Your task to perform on an android device: Open Maps and search for coffee Image 0: 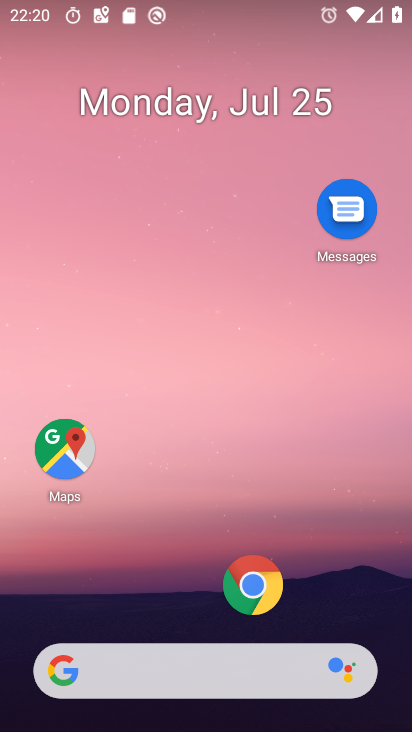
Step 0: click (75, 452)
Your task to perform on an android device: Open Maps and search for coffee Image 1: 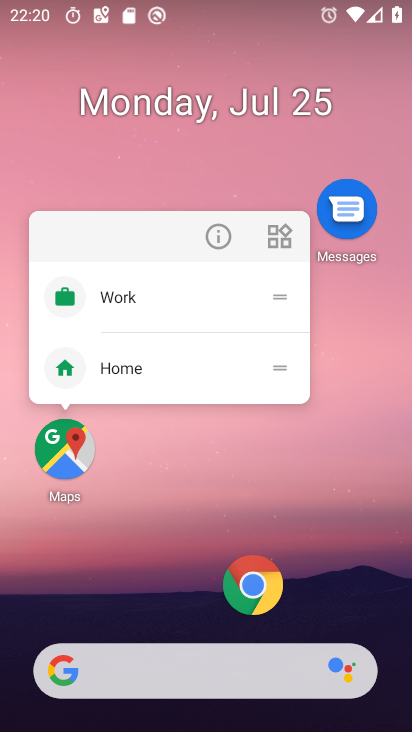
Step 1: click (60, 464)
Your task to perform on an android device: Open Maps and search for coffee Image 2: 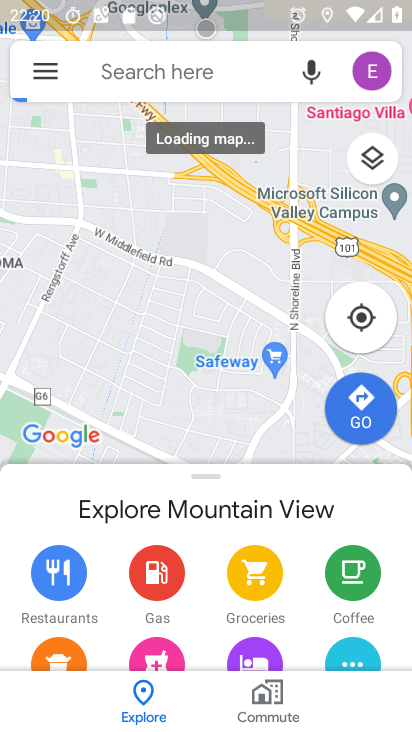
Step 2: click (190, 75)
Your task to perform on an android device: Open Maps and search for coffee Image 3: 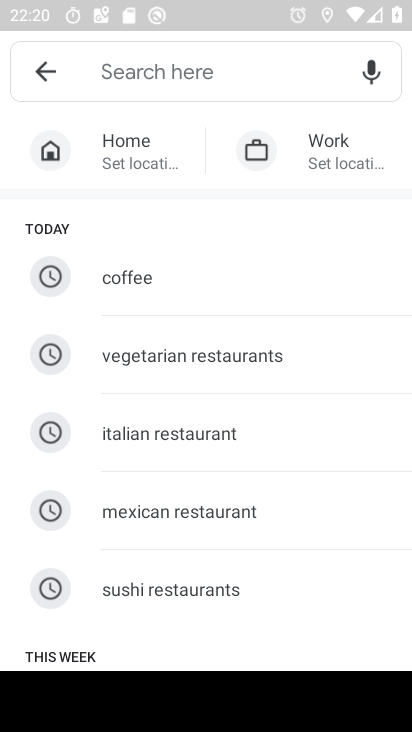
Step 3: click (111, 272)
Your task to perform on an android device: Open Maps and search for coffee Image 4: 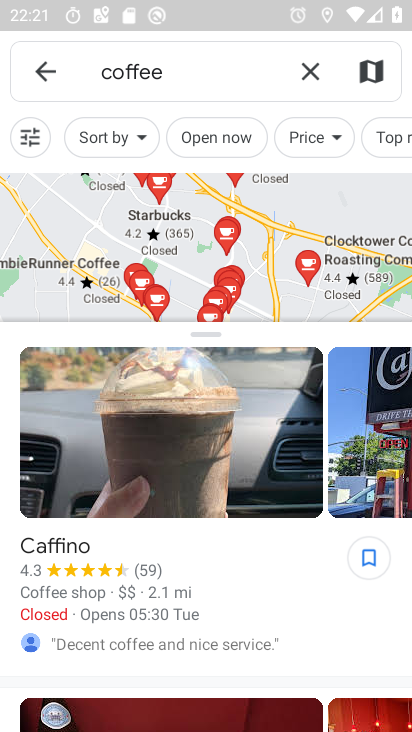
Step 4: task complete